Your task to perform on an android device: Go to Wikipedia Image 0: 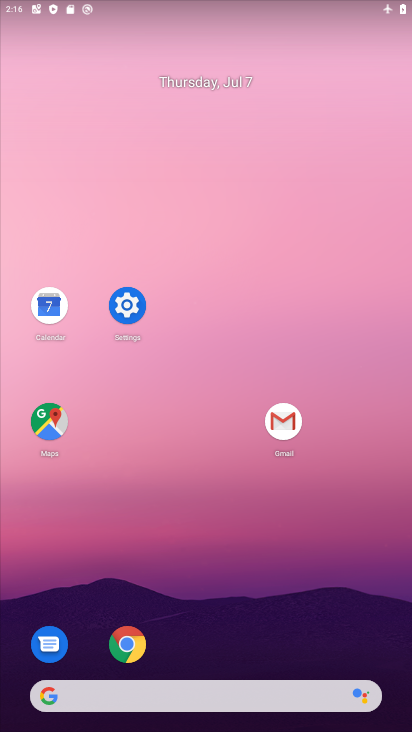
Step 0: click (115, 636)
Your task to perform on an android device: Go to Wikipedia Image 1: 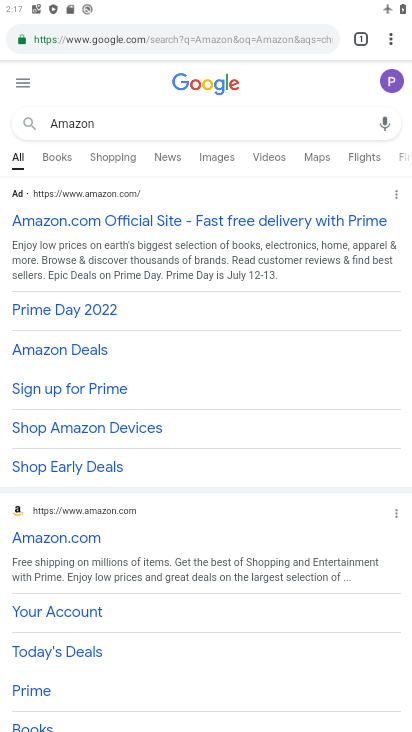
Step 1: click (167, 124)
Your task to perform on an android device: Go to Wikipedia Image 2: 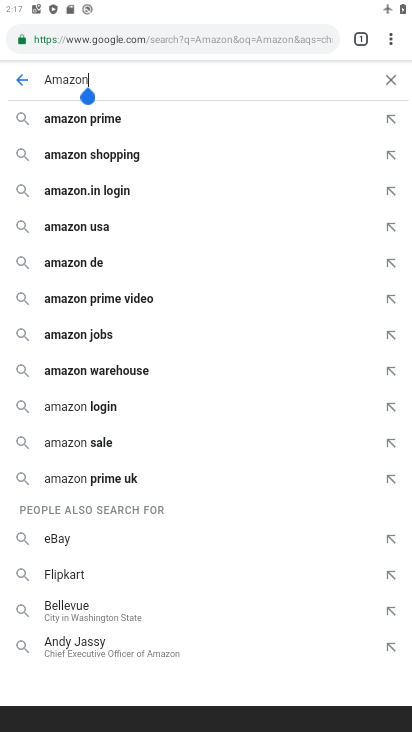
Step 2: click (298, 30)
Your task to perform on an android device: Go to Wikipedia Image 3: 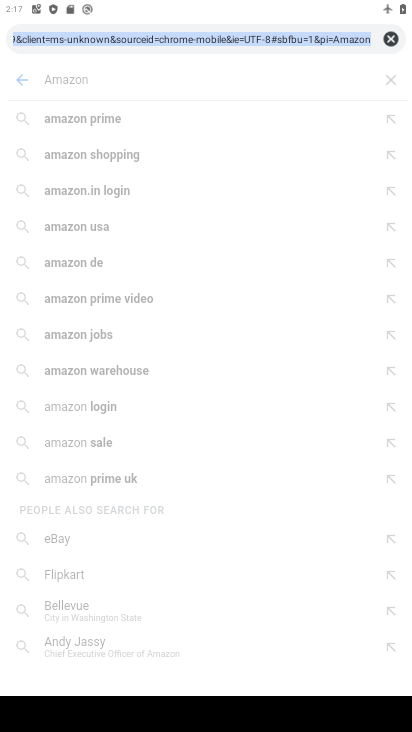
Step 3: click (385, 30)
Your task to perform on an android device: Go to Wikipedia Image 4: 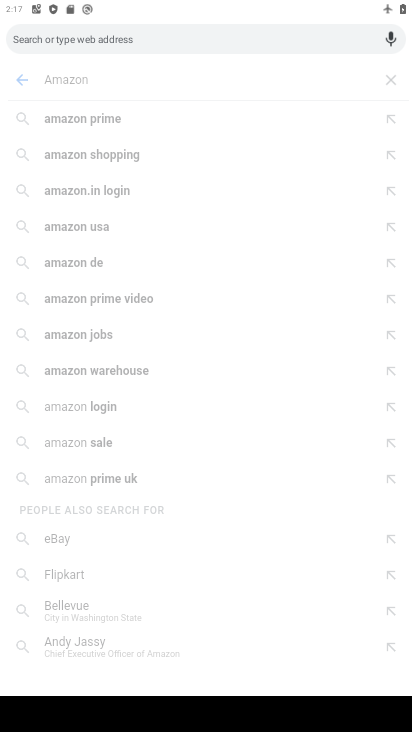
Step 4: type "Wikipedia"
Your task to perform on an android device: Go to Wikipedia Image 5: 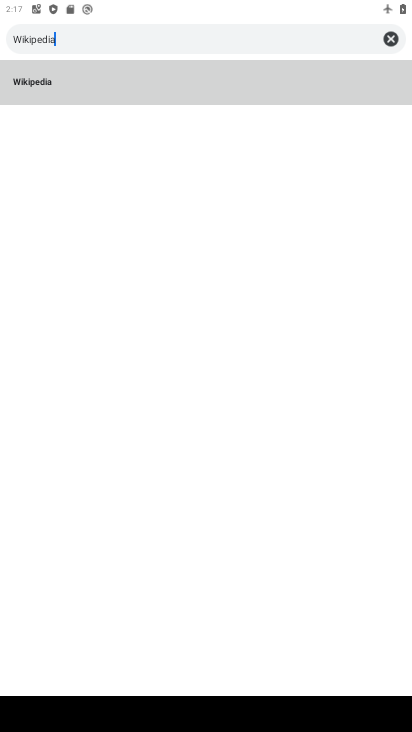
Step 5: click (20, 83)
Your task to perform on an android device: Go to Wikipedia Image 6: 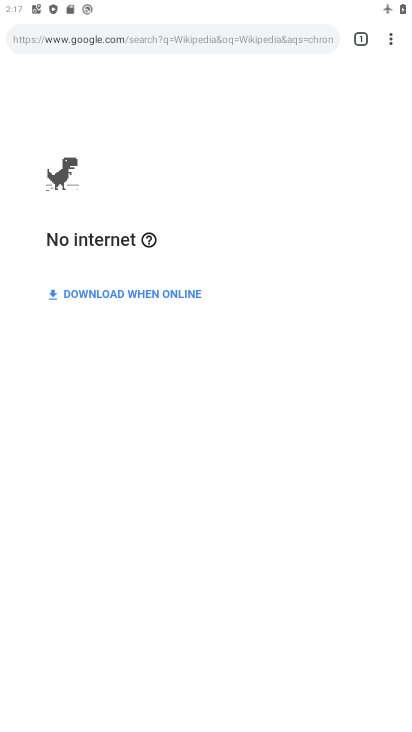
Step 6: task complete